Your task to perform on an android device: allow notifications from all sites in the chrome app Image 0: 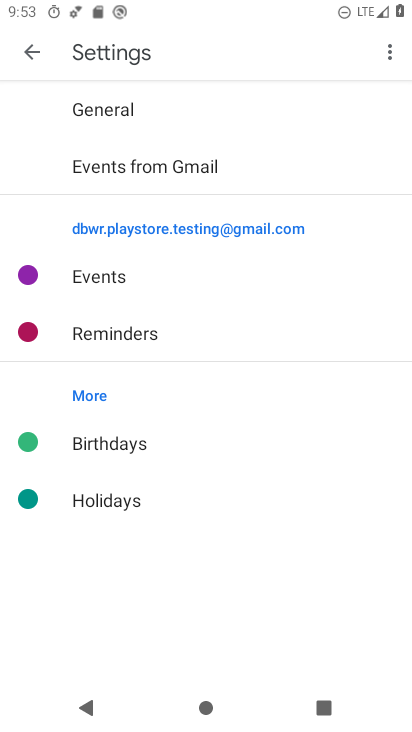
Step 0: press home button
Your task to perform on an android device: allow notifications from all sites in the chrome app Image 1: 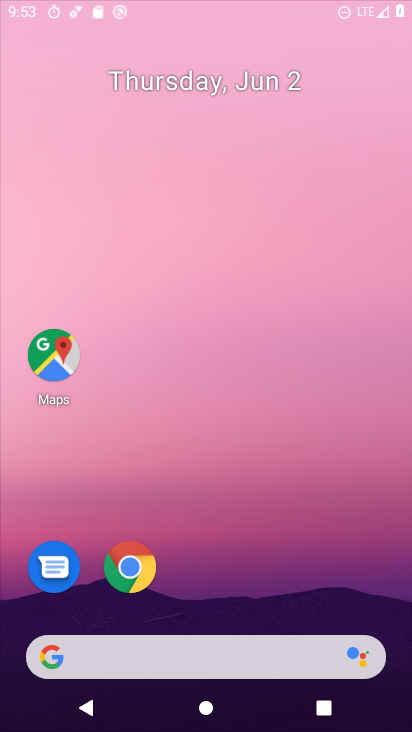
Step 1: drag from (281, 363) to (279, 201)
Your task to perform on an android device: allow notifications from all sites in the chrome app Image 2: 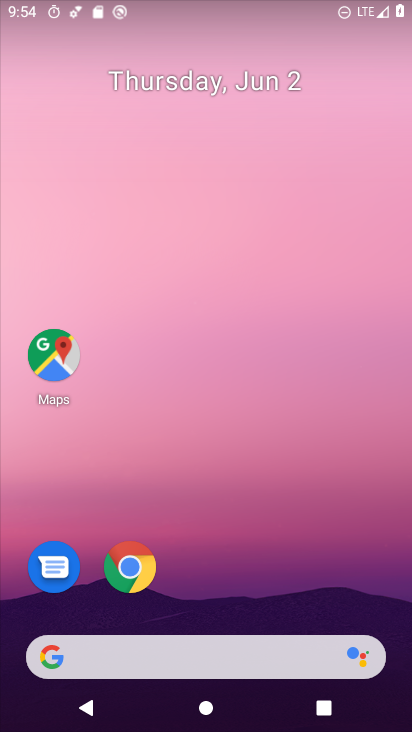
Step 2: drag from (342, 587) to (346, 164)
Your task to perform on an android device: allow notifications from all sites in the chrome app Image 3: 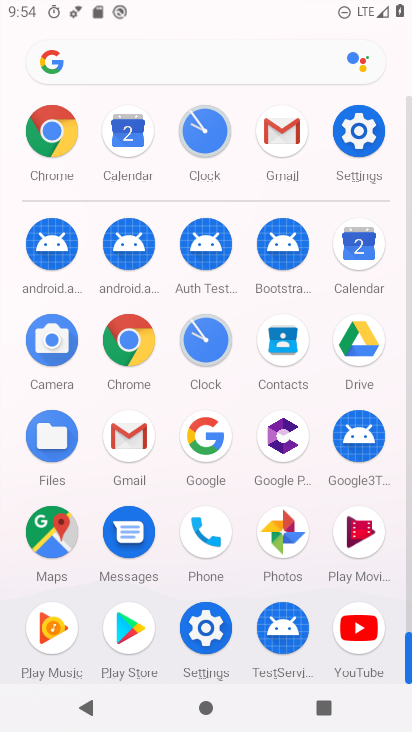
Step 3: click (137, 357)
Your task to perform on an android device: allow notifications from all sites in the chrome app Image 4: 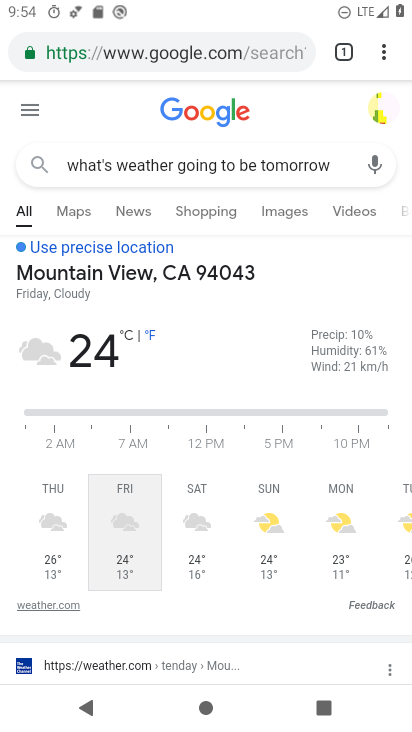
Step 4: click (240, 54)
Your task to perform on an android device: allow notifications from all sites in the chrome app Image 5: 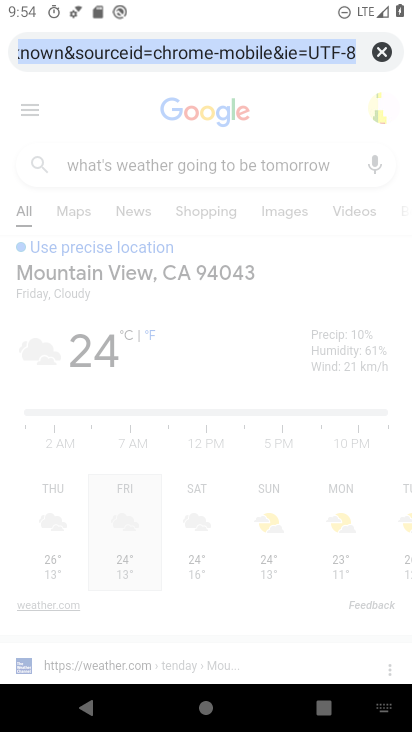
Step 5: click (379, 54)
Your task to perform on an android device: allow notifications from all sites in the chrome app Image 6: 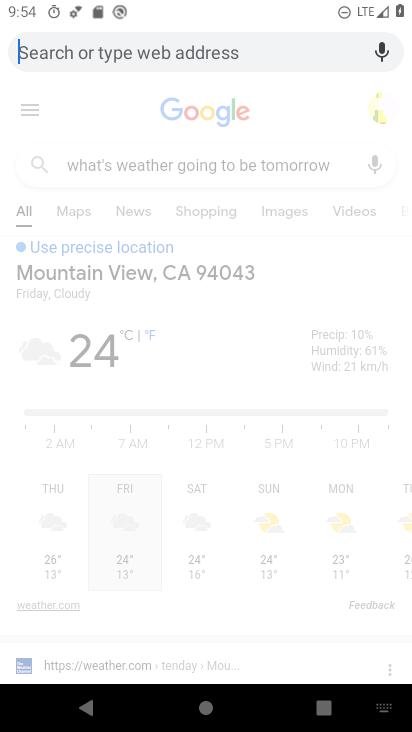
Step 6: press back button
Your task to perform on an android device: allow notifications from all sites in the chrome app Image 7: 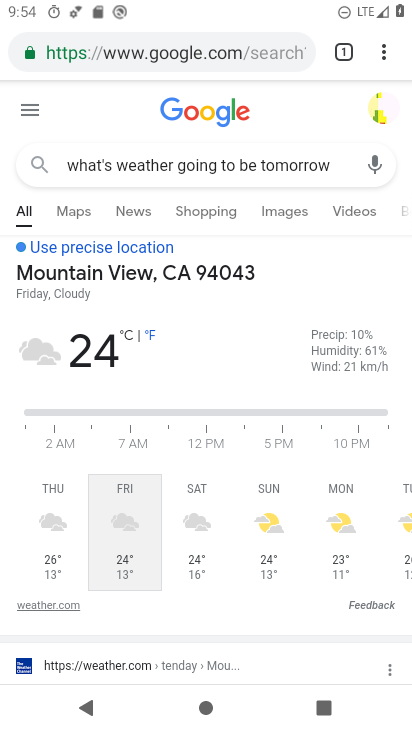
Step 7: drag from (388, 48) to (215, 593)
Your task to perform on an android device: allow notifications from all sites in the chrome app Image 8: 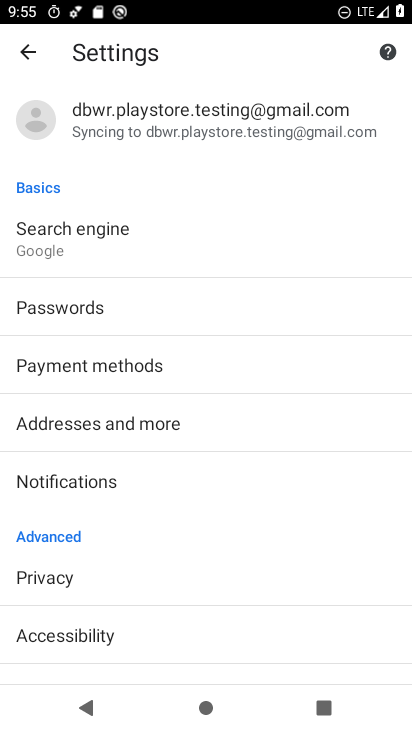
Step 8: drag from (238, 552) to (275, 229)
Your task to perform on an android device: allow notifications from all sites in the chrome app Image 9: 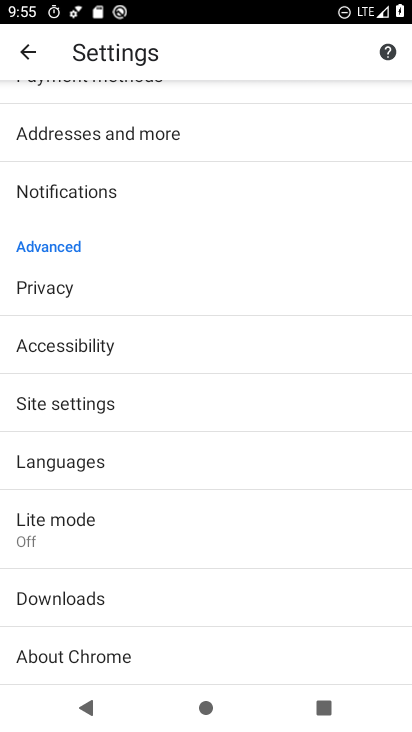
Step 9: click (129, 414)
Your task to perform on an android device: allow notifications from all sites in the chrome app Image 10: 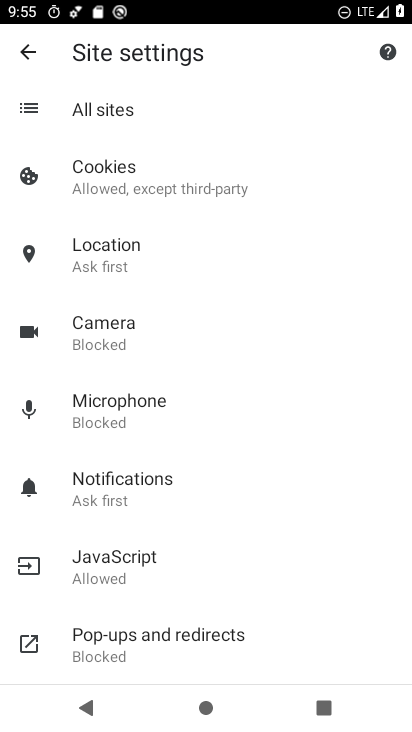
Step 10: click (197, 115)
Your task to perform on an android device: allow notifications from all sites in the chrome app Image 11: 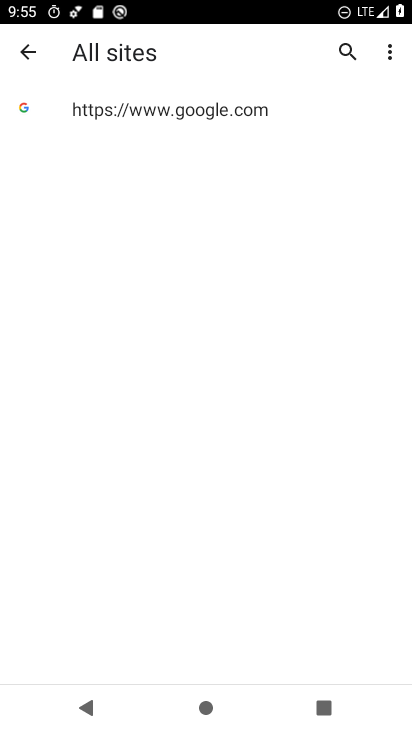
Step 11: task complete